Your task to perform on an android device: refresh tabs in the chrome app Image 0: 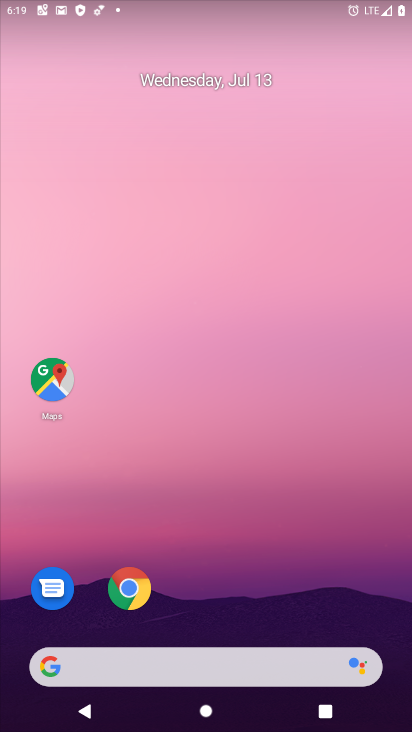
Step 0: click (137, 603)
Your task to perform on an android device: refresh tabs in the chrome app Image 1: 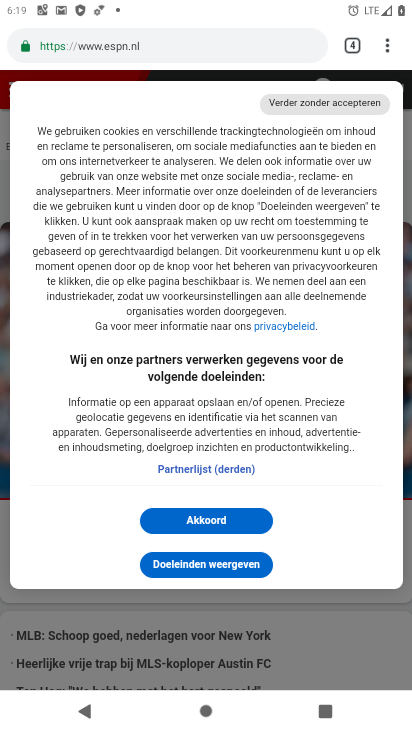
Step 1: click (383, 48)
Your task to perform on an android device: refresh tabs in the chrome app Image 2: 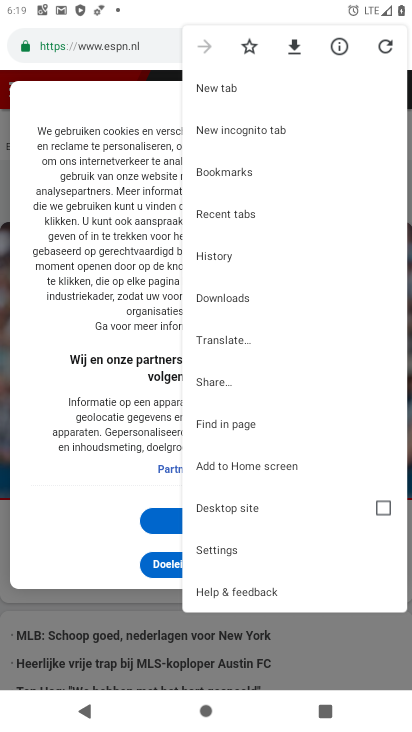
Step 2: click (387, 51)
Your task to perform on an android device: refresh tabs in the chrome app Image 3: 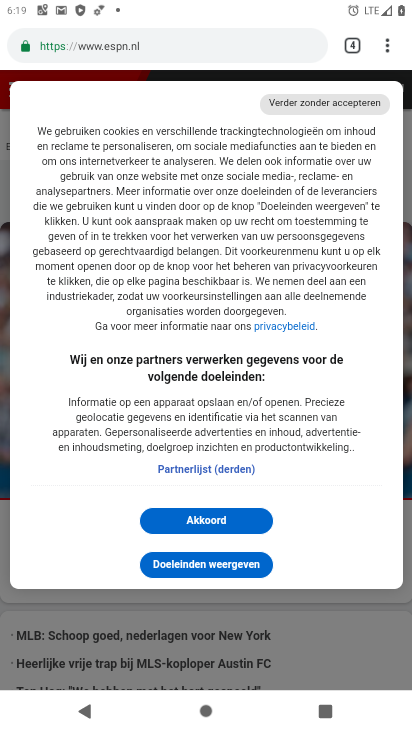
Step 3: task complete